Your task to perform on an android device: Is it going to rain tomorrow? Image 0: 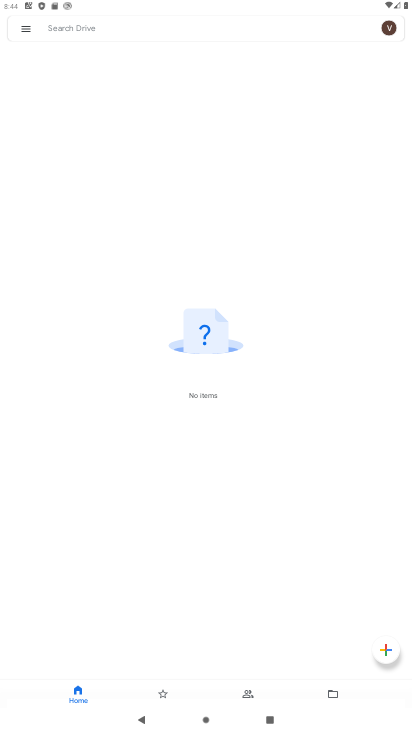
Step 0: press home button
Your task to perform on an android device: Is it going to rain tomorrow? Image 1: 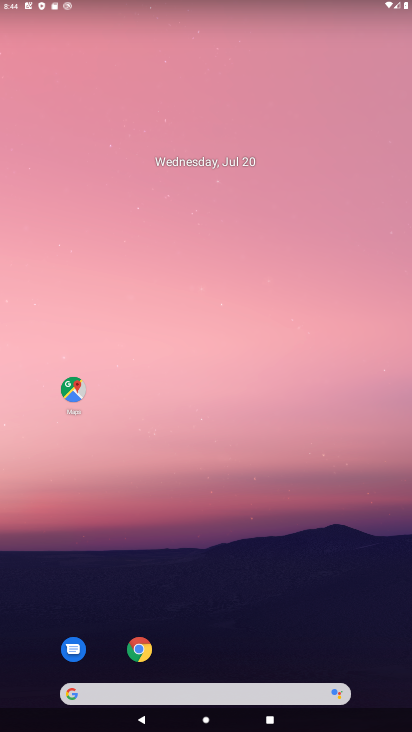
Step 1: drag from (196, 688) to (230, 197)
Your task to perform on an android device: Is it going to rain tomorrow? Image 2: 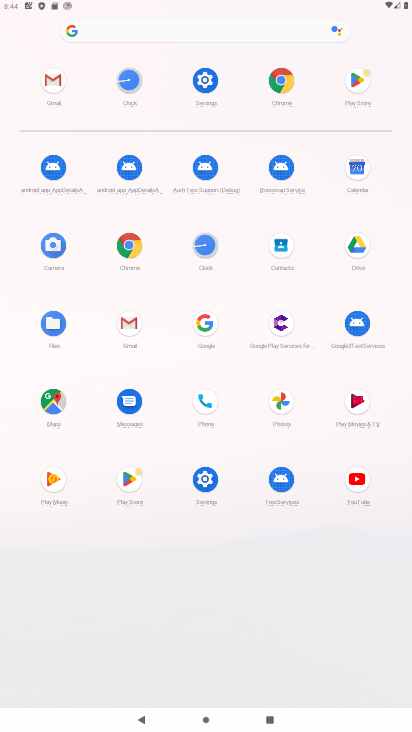
Step 2: click (205, 325)
Your task to perform on an android device: Is it going to rain tomorrow? Image 3: 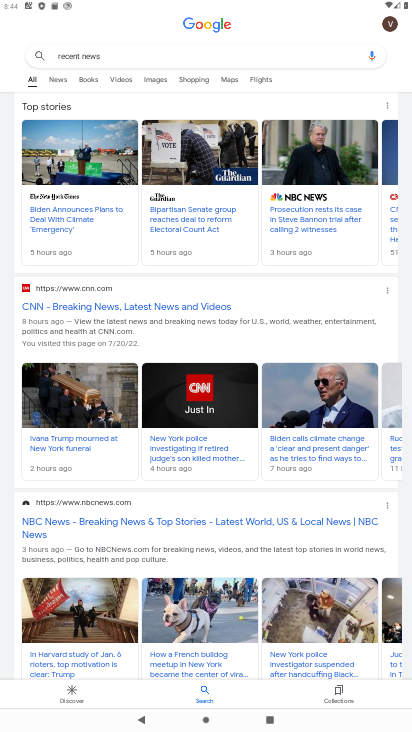
Step 3: click (298, 45)
Your task to perform on an android device: Is it going to rain tomorrow? Image 4: 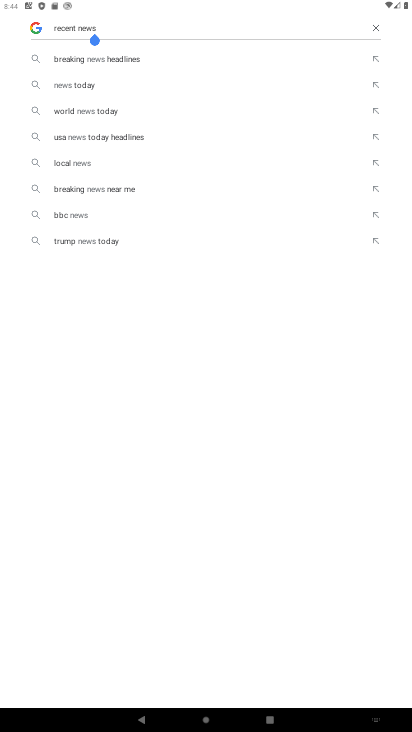
Step 4: click (372, 27)
Your task to perform on an android device: Is it going to rain tomorrow? Image 5: 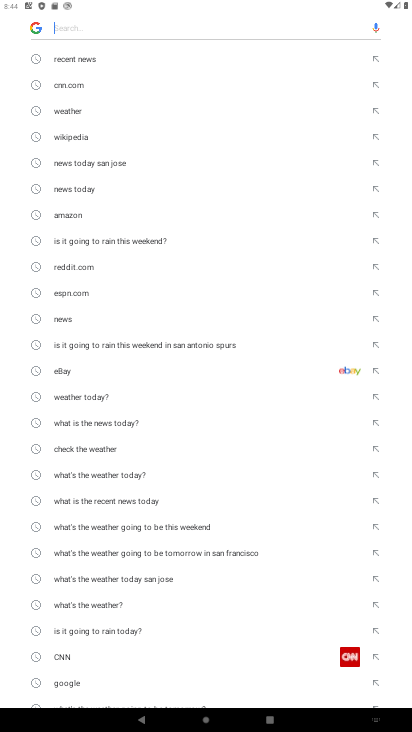
Step 5: click (78, 111)
Your task to perform on an android device: Is it going to rain tomorrow? Image 6: 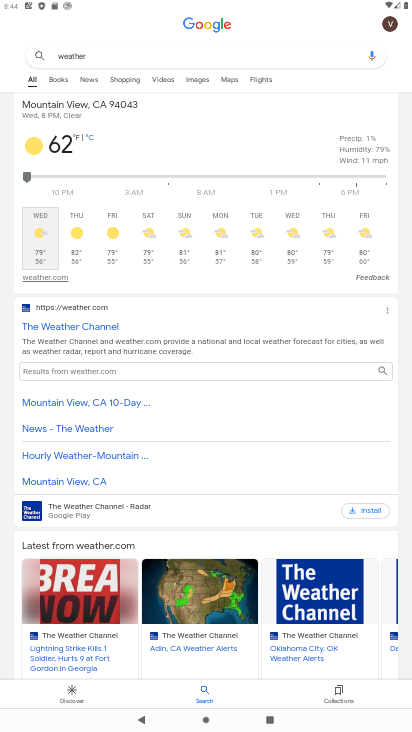
Step 6: task complete